Your task to perform on an android device: turn off picture-in-picture Image 0: 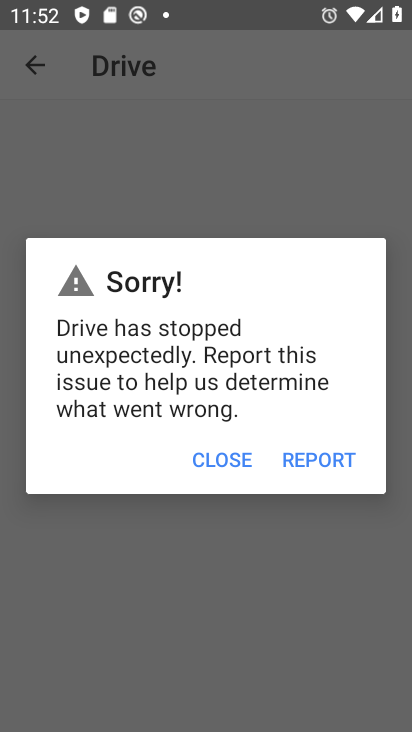
Step 0: press home button
Your task to perform on an android device: turn off picture-in-picture Image 1: 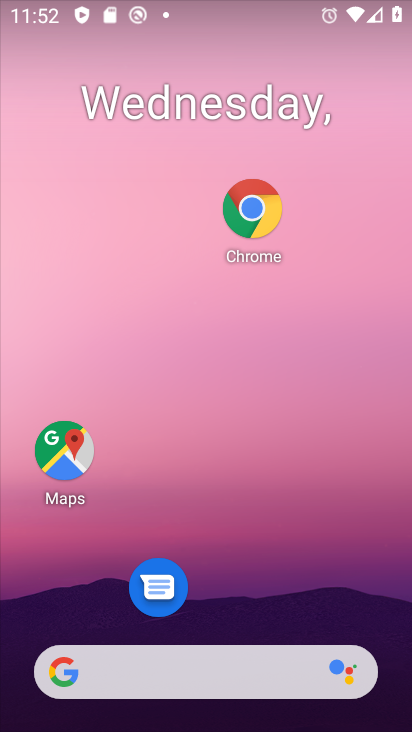
Step 1: drag from (232, 596) to (309, 9)
Your task to perform on an android device: turn off picture-in-picture Image 2: 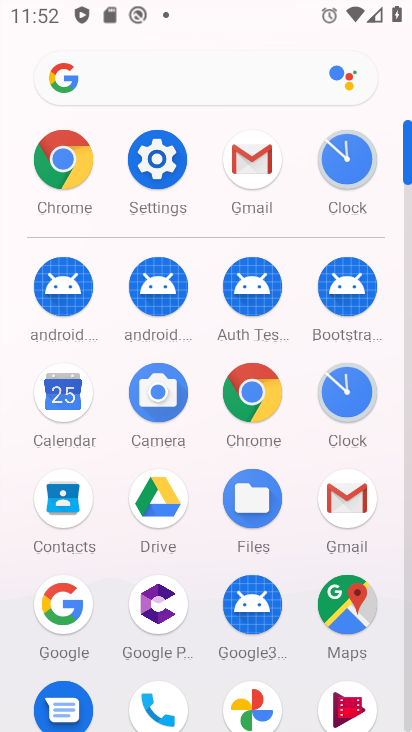
Step 2: drag from (210, 629) to (295, 125)
Your task to perform on an android device: turn off picture-in-picture Image 3: 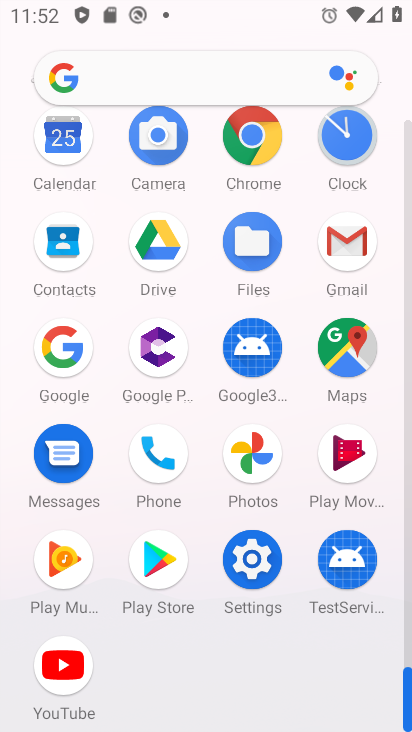
Step 3: drag from (212, 172) to (200, 583)
Your task to perform on an android device: turn off picture-in-picture Image 4: 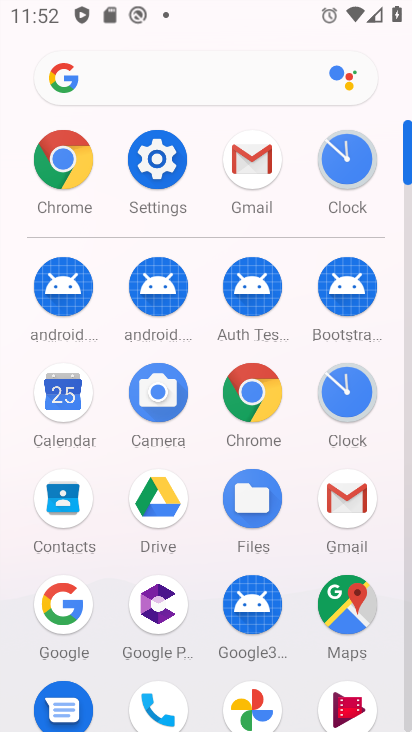
Step 4: click (149, 166)
Your task to perform on an android device: turn off picture-in-picture Image 5: 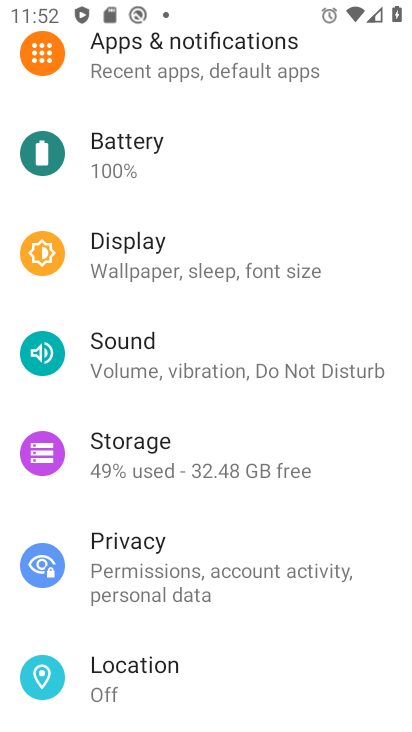
Step 5: drag from (182, 128) to (187, 602)
Your task to perform on an android device: turn off picture-in-picture Image 6: 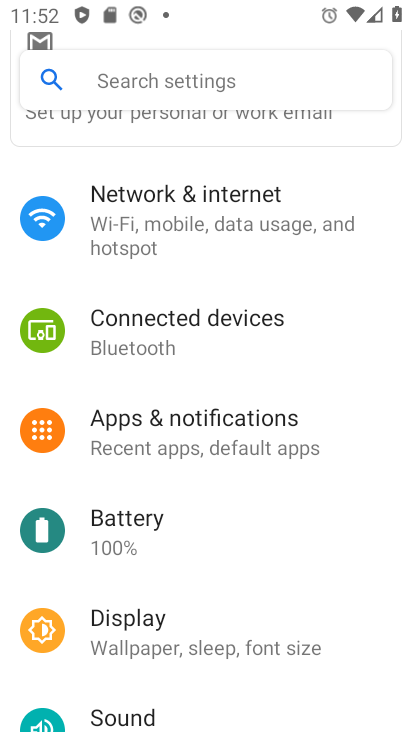
Step 6: click (191, 440)
Your task to perform on an android device: turn off picture-in-picture Image 7: 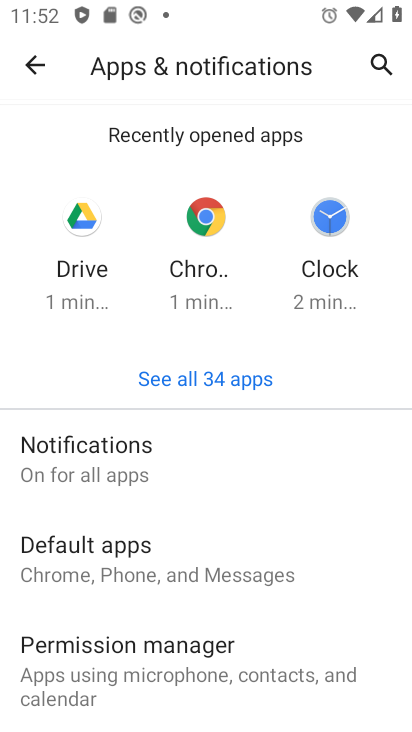
Step 7: drag from (135, 665) to (183, 407)
Your task to perform on an android device: turn off picture-in-picture Image 8: 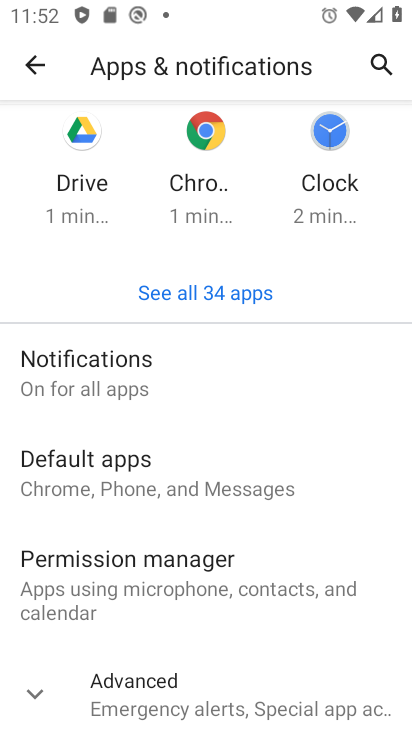
Step 8: click (113, 384)
Your task to perform on an android device: turn off picture-in-picture Image 9: 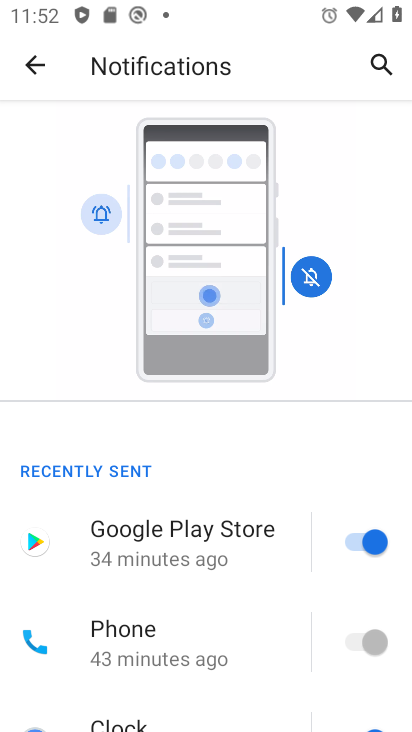
Step 9: click (27, 64)
Your task to perform on an android device: turn off picture-in-picture Image 10: 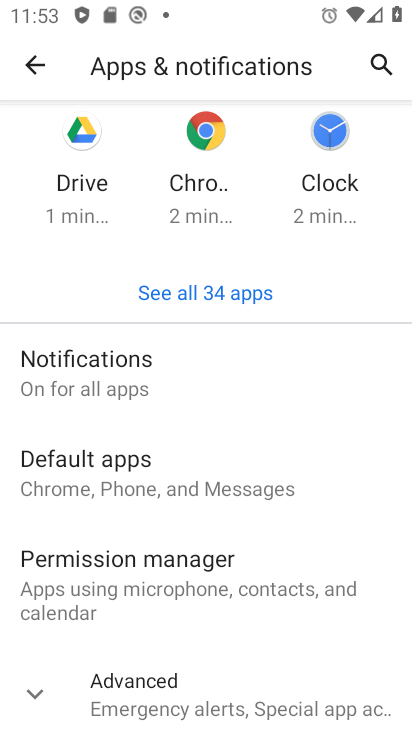
Step 10: drag from (192, 647) to (229, 357)
Your task to perform on an android device: turn off picture-in-picture Image 11: 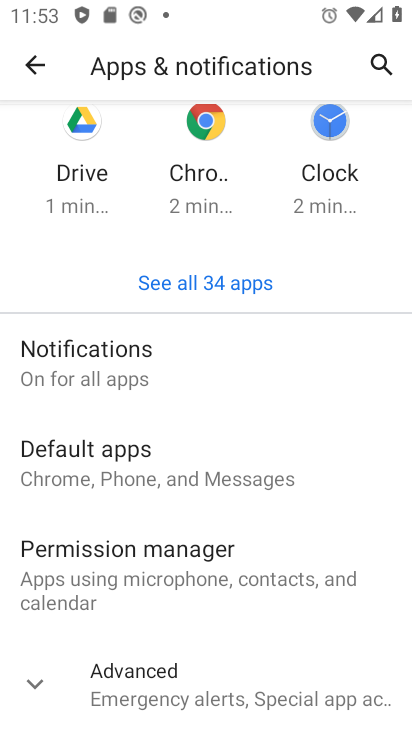
Step 11: click (185, 695)
Your task to perform on an android device: turn off picture-in-picture Image 12: 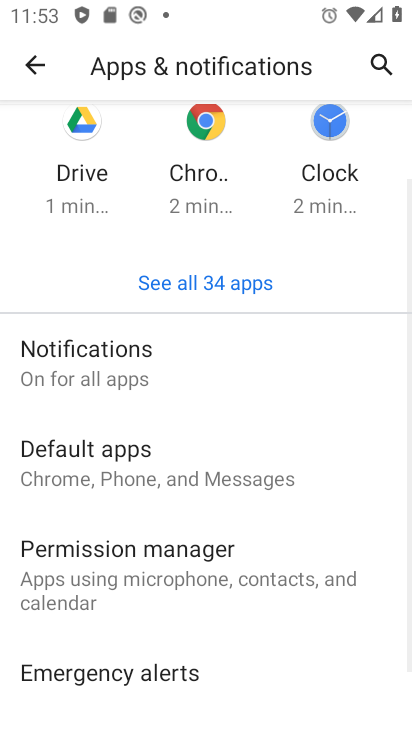
Step 12: drag from (178, 675) to (241, 296)
Your task to perform on an android device: turn off picture-in-picture Image 13: 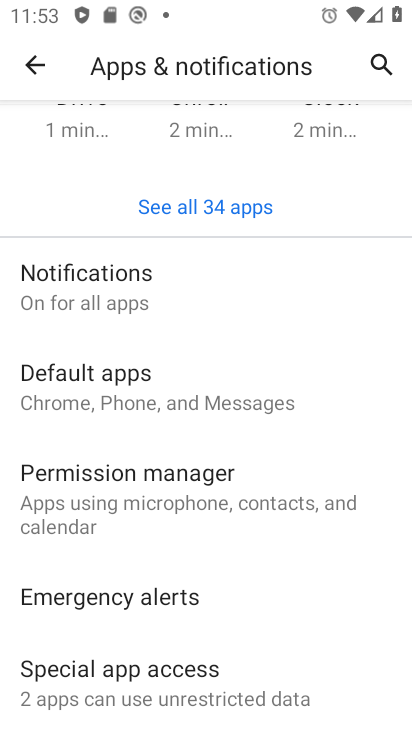
Step 13: click (213, 683)
Your task to perform on an android device: turn off picture-in-picture Image 14: 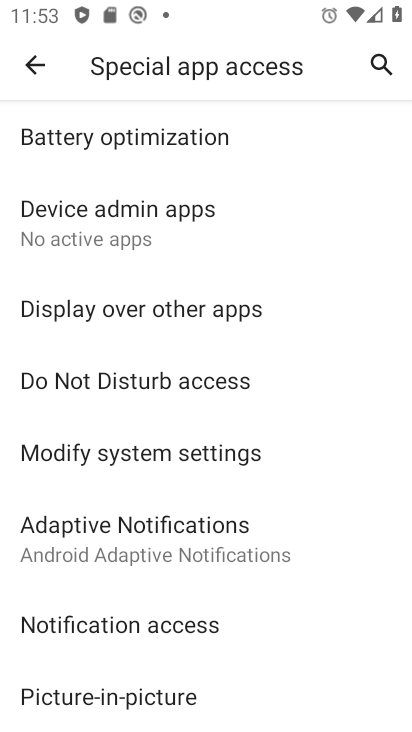
Step 14: click (182, 697)
Your task to perform on an android device: turn off picture-in-picture Image 15: 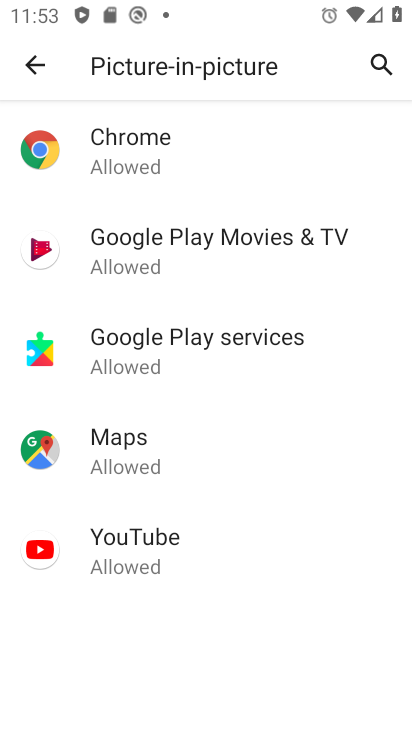
Step 15: click (124, 157)
Your task to perform on an android device: turn off picture-in-picture Image 16: 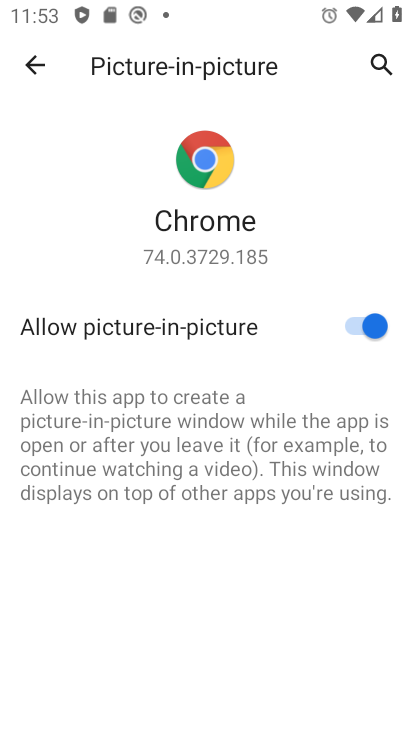
Step 16: click (358, 335)
Your task to perform on an android device: turn off picture-in-picture Image 17: 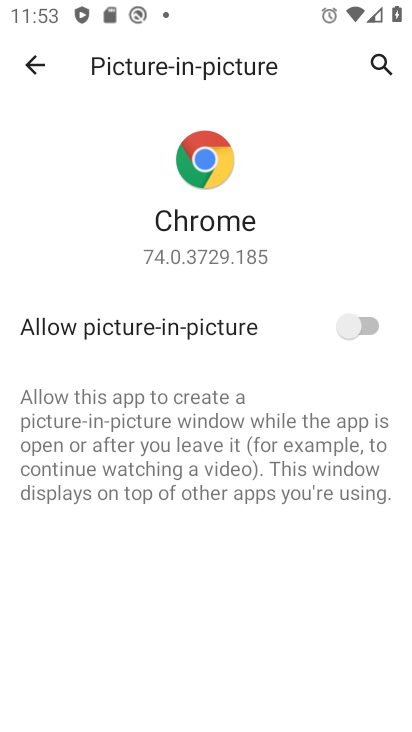
Step 17: task complete